Your task to perform on an android device: turn off improve location accuracy Image 0: 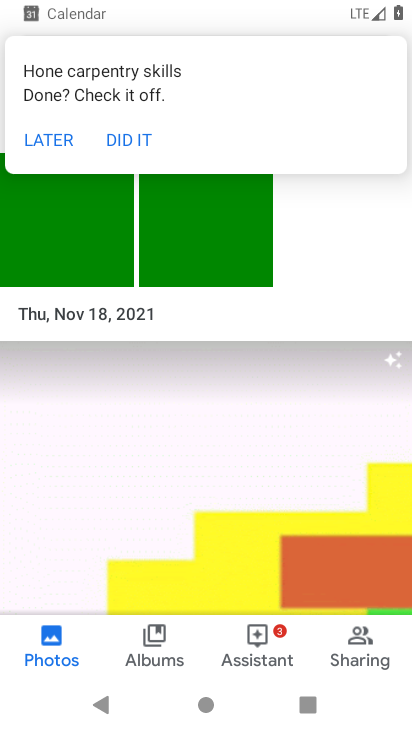
Step 0: press home button
Your task to perform on an android device: turn off improve location accuracy Image 1: 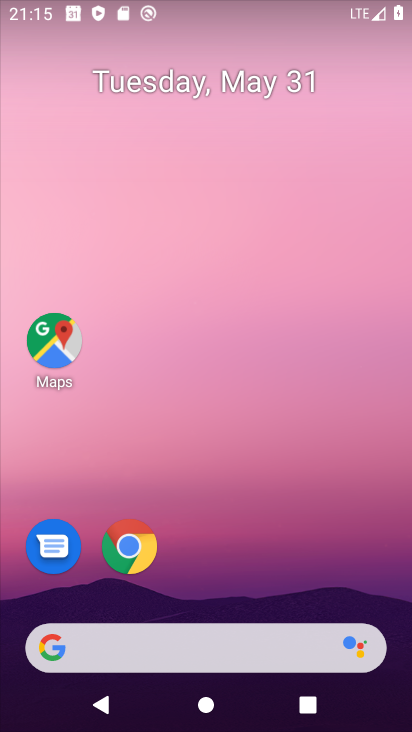
Step 1: drag from (390, 595) to (358, 135)
Your task to perform on an android device: turn off improve location accuracy Image 2: 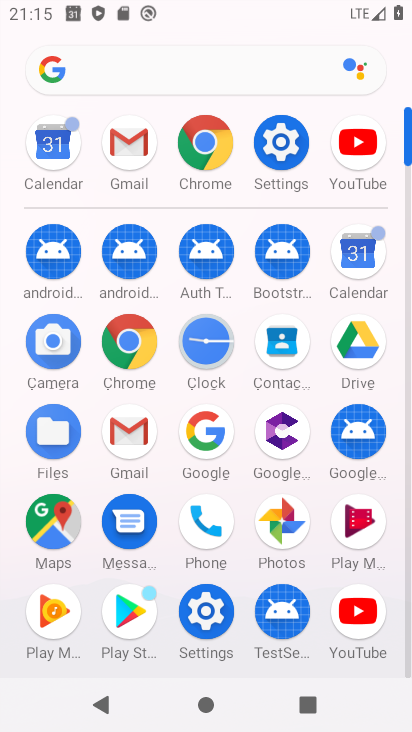
Step 2: click (281, 149)
Your task to perform on an android device: turn off improve location accuracy Image 3: 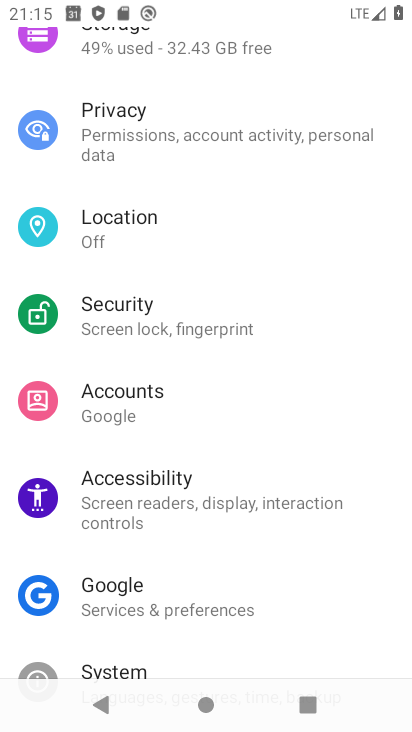
Step 3: drag from (284, 625) to (271, 317)
Your task to perform on an android device: turn off improve location accuracy Image 4: 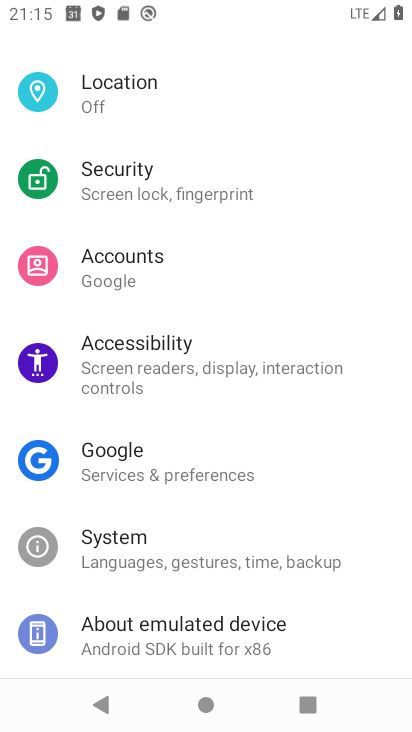
Step 4: click (122, 103)
Your task to perform on an android device: turn off improve location accuracy Image 5: 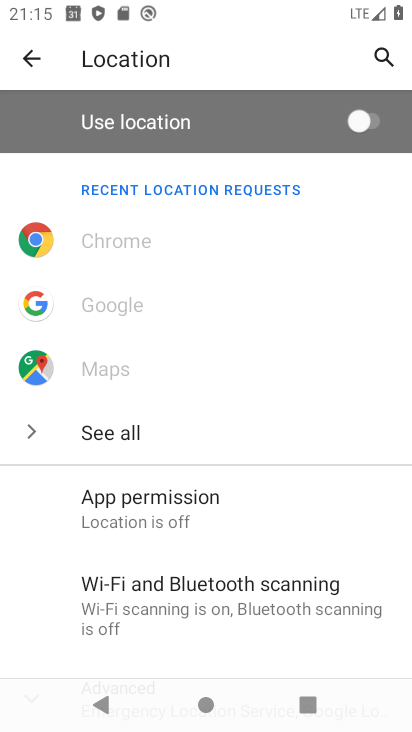
Step 5: drag from (332, 614) to (321, 139)
Your task to perform on an android device: turn off improve location accuracy Image 6: 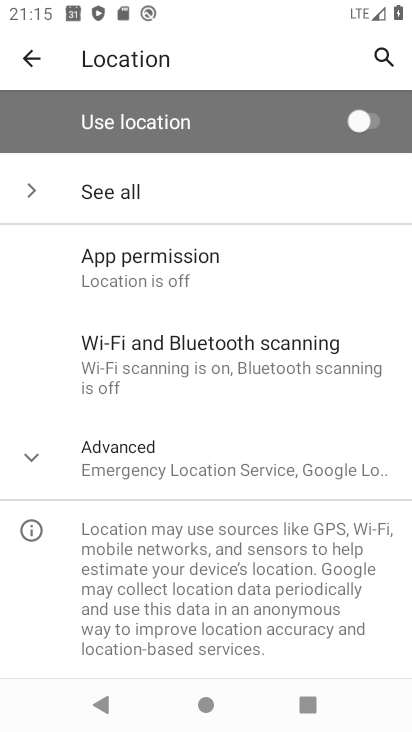
Step 6: click (30, 452)
Your task to perform on an android device: turn off improve location accuracy Image 7: 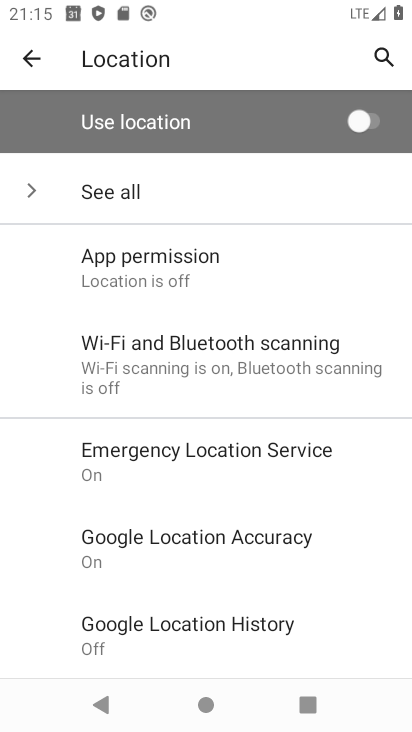
Step 7: click (178, 540)
Your task to perform on an android device: turn off improve location accuracy Image 8: 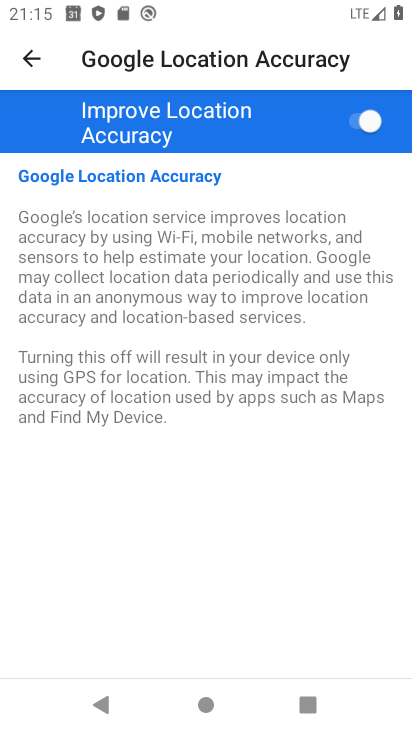
Step 8: click (353, 123)
Your task to perform on an android device: turn off improve location accuracy Image 9: 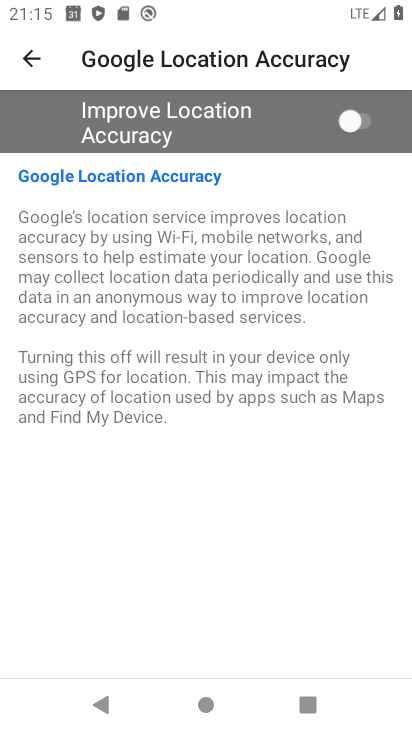
Step 9: task complete